Your task to perform on an android device: clear history in the chrome app Image 0: 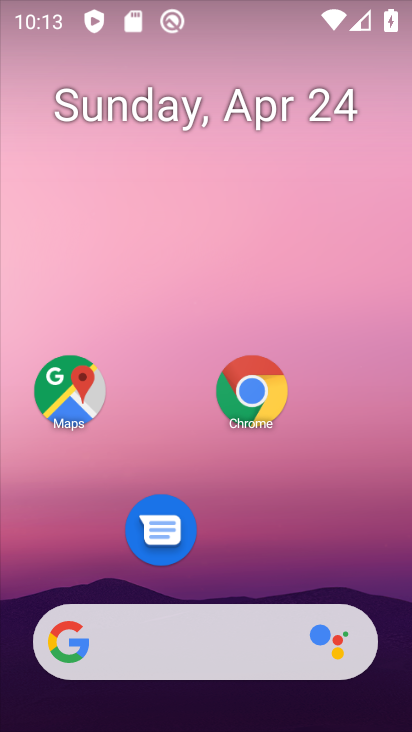
Step 0: click (262, 394)
Your task to perform on an android device: clear history in the chrome app Image 1: 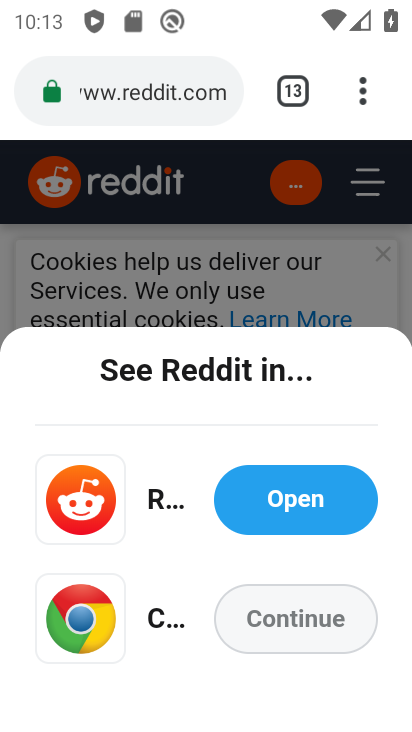
Step 1: click (376, 97)
Your task to perform on an android device: clear history in the chrome app Image 2: 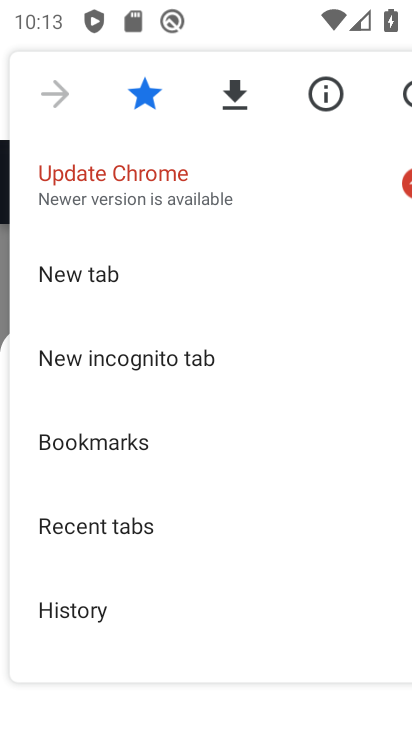
Step 2: click (77, 626)
Your task to perform on an android device: clear history in the chrome app Image 3: 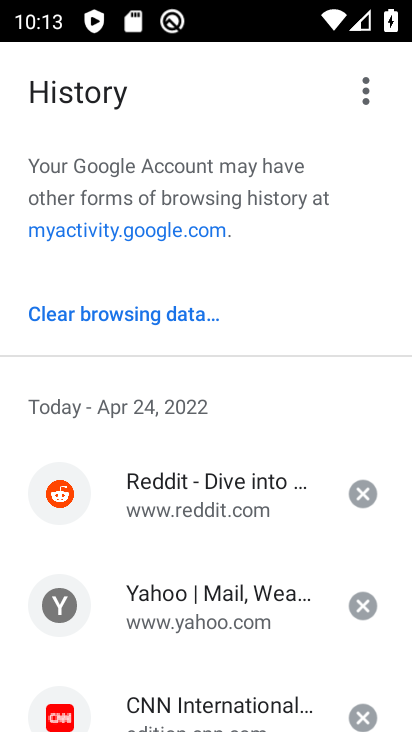
Step 3: click (134, 329)
Your task to perform on an android device: clear history in the chrome app Image 4: 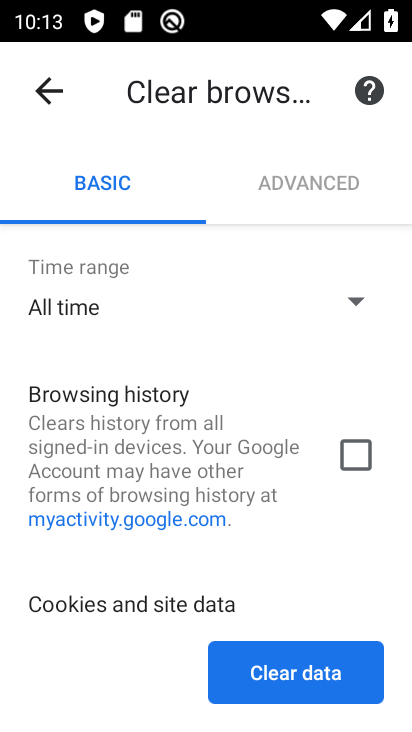
Step 4: click (338, 442)
Your task to perform on an android device: clear history in the chrome app Image 5: 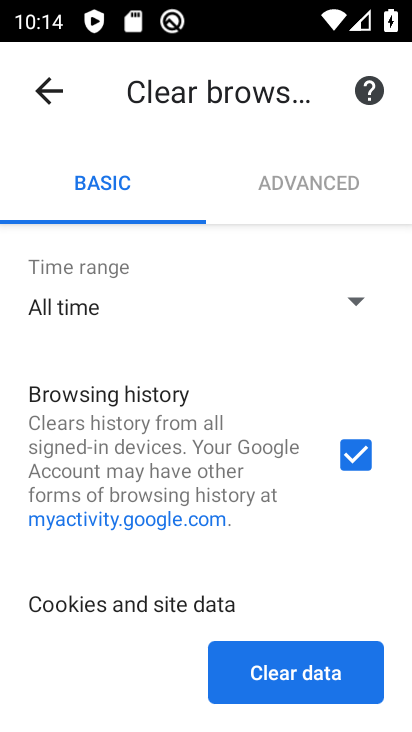
Step 5: click (334, 657)
Your task to perform on an android device: clear history in the chrome app Image 6: 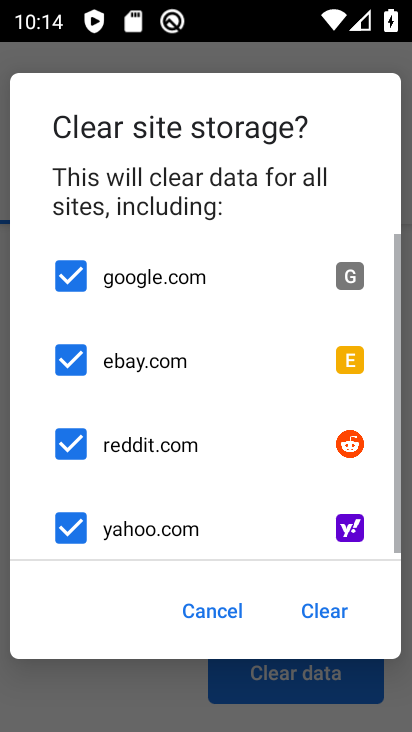
Step 6: click (331, 624)
Your task to perform on an android device: clear history in the chrome app Image 7: 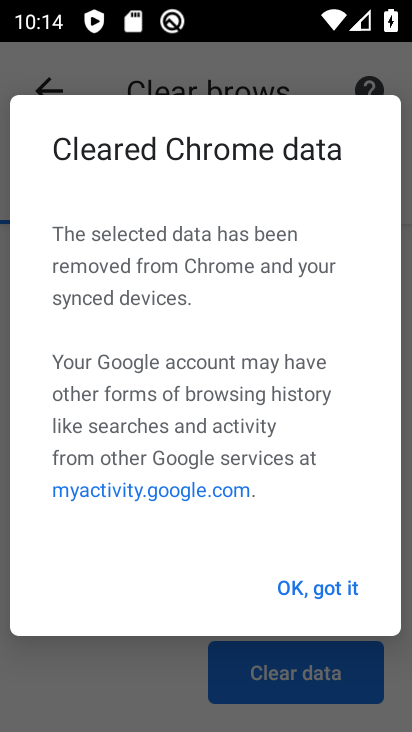
Step 7: click (314, 600)
Your task to perform on an android device: clear history in the chrome app Image 8: 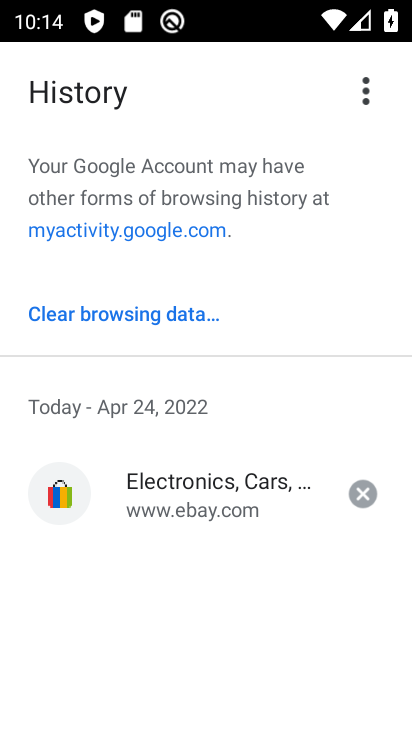
Step 8: task complete